Your task to perform on an android device: Open Google Chrome and open the bookmarks view Image 0: 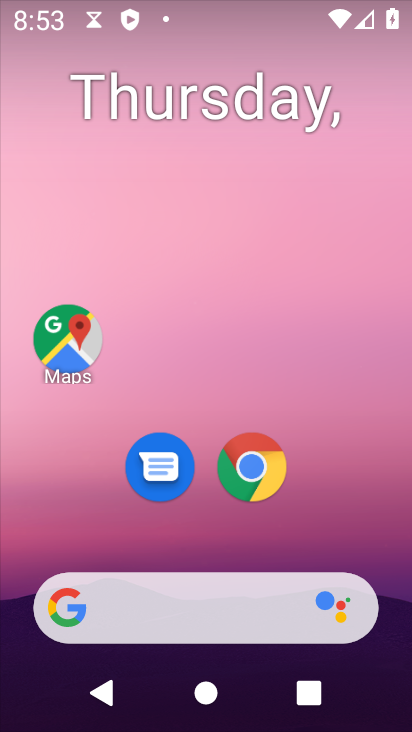
Step 0: click (273, 462)
Your task to perform on an android device: Open Google Chrome and open the bookmarks view Image 1: 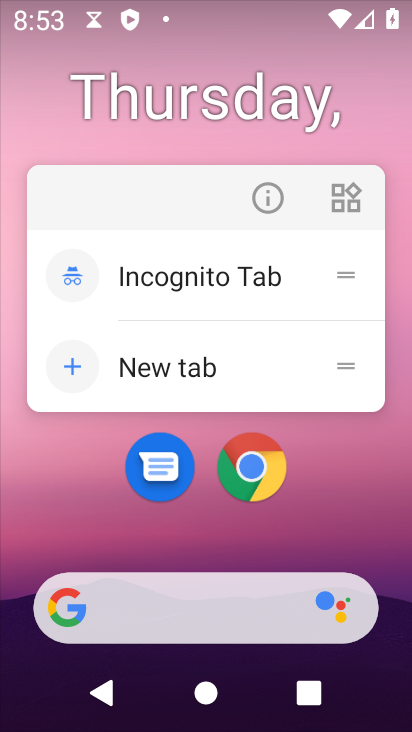
Step 1: click (264, 458)
Your task to perform on an android device: Open Google Chrome and open the bookmarks view Image 2: 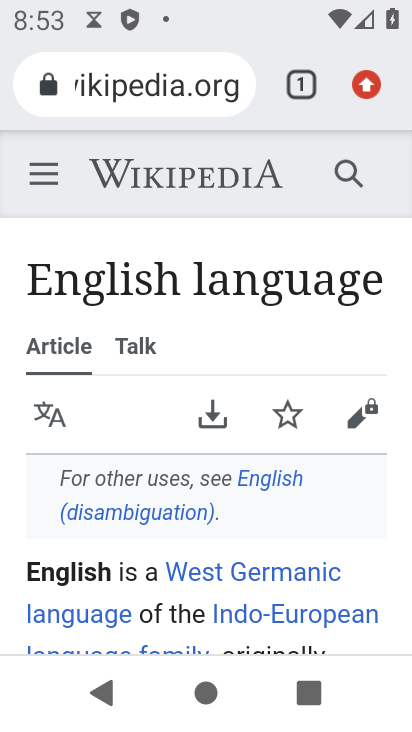
Step 2: click (351, 96)
Your task to perform on an android device: Open Google Chrome and open the bookmarks view Image 3: 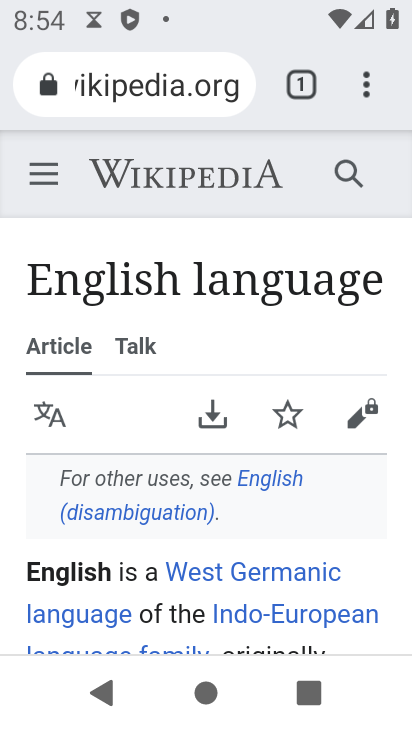
Step 3: click (351, 96)
Your task to perform on an android device: Open Google Chrome and open the bookmarks view Image 4: 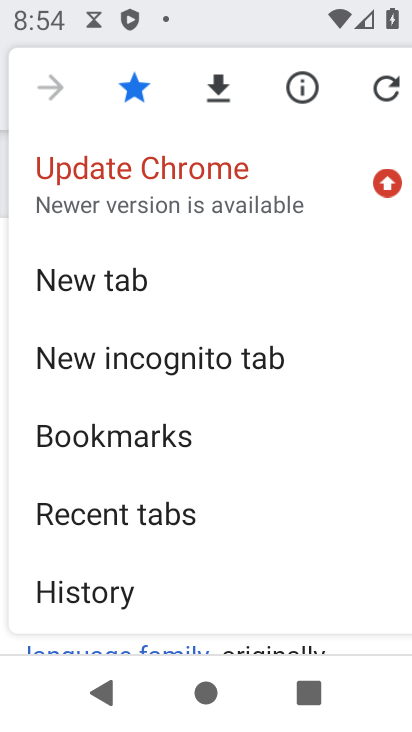
Step 4: click (285, 420)
Your task to perform on an android device: Open Google Chrome and open the bookmarks view Image 5: 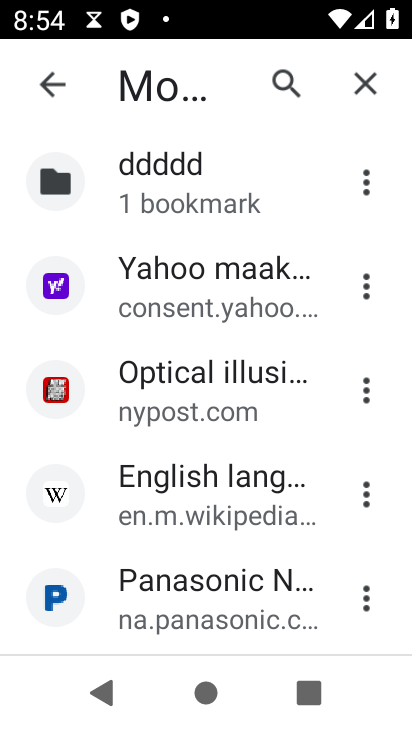
Step 5: task complete